Your task to perform on an android device: When is my next meeting? Image 0: 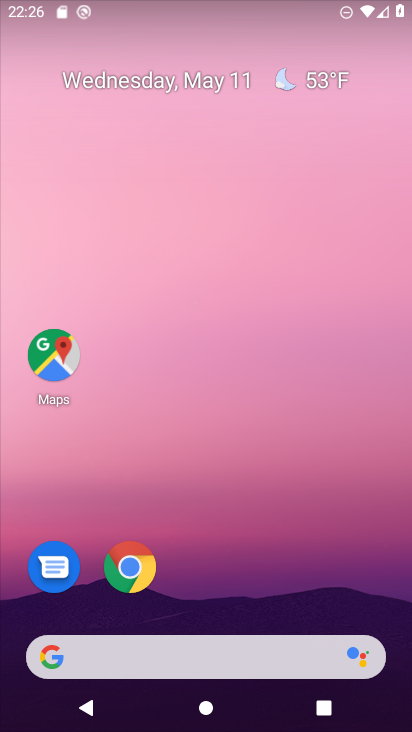
Step 0: drag from (272, 705) to (314, 77)
Your task to perform on an android device: When is my next meeting? Image 1: 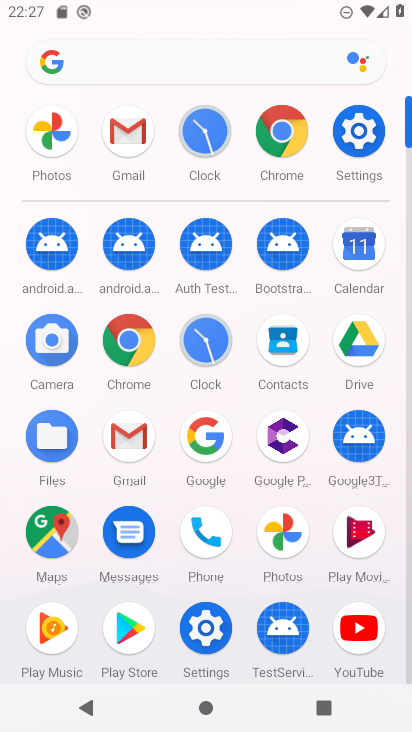
Step 1: click (362, 255)
Your task to perform on an android device: When is my next meeting? Image 2: 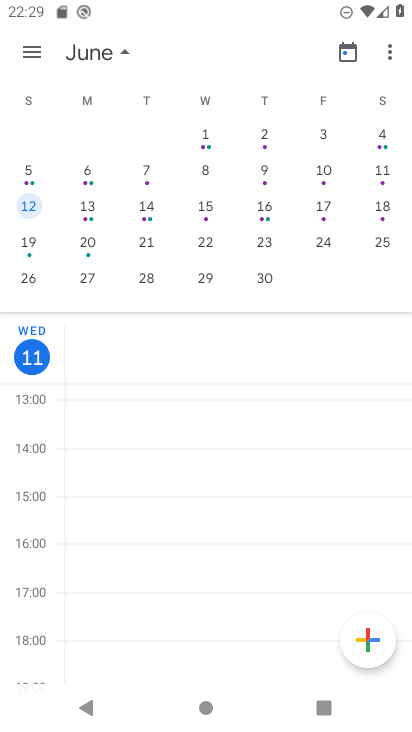
Step 2: task complete